Your task to perform on an android device: Clear all items from cart on walmart.com. Search for "razer huntsman" on walmart.com, select the first entry, add it to the cart, then select checkout. Image 0: 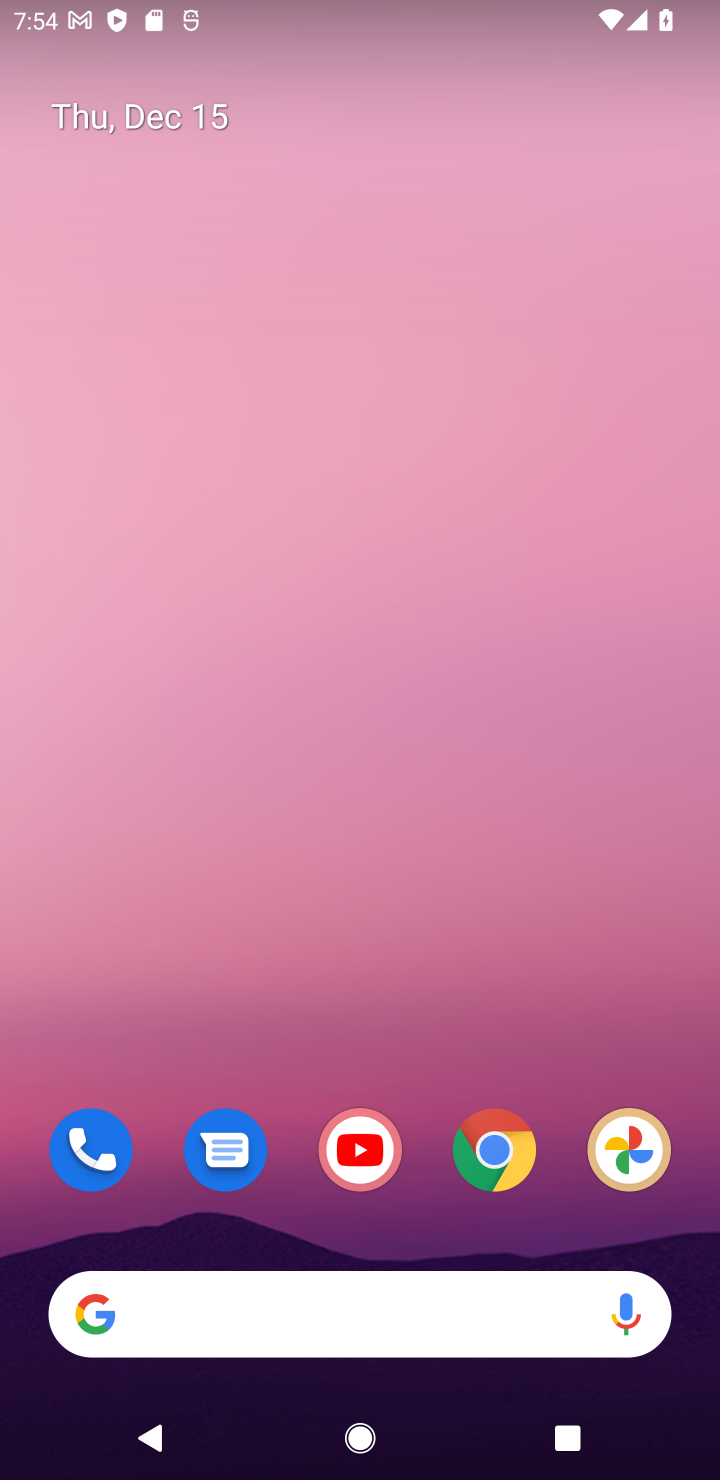
Step 0: click (499, 1149)
Your task to perform on an android device: Clear all items from cart on walmart.com. Search for "razer huntsman" on walmart.com, select the first entry, add it to the cart, then select checkout. Image 1: 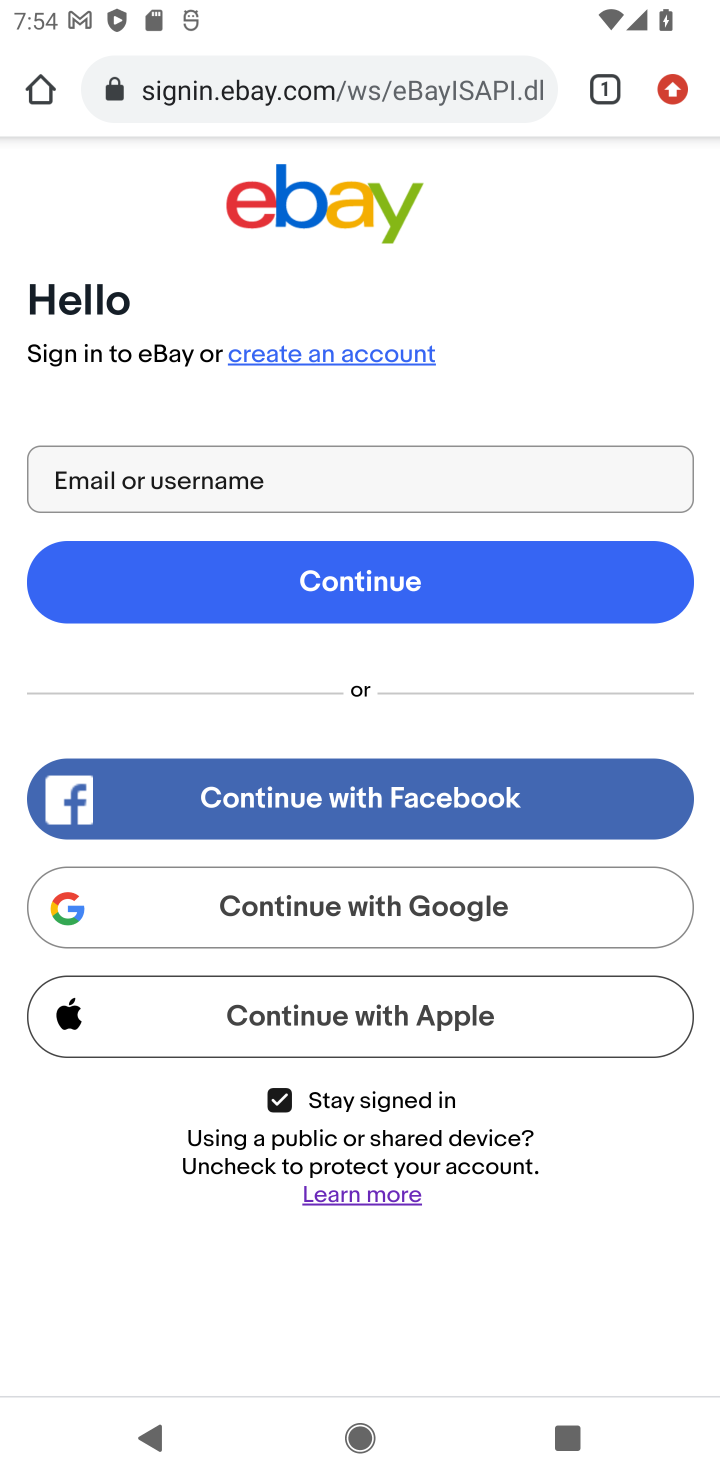
Step 1: click (354, 88)
Your task to perform on an android device: Clear all items from cart on walmart.com. Search for "razer huntsman" on walmart.com, select the first entry, add it to the cart, then select checkout. Image 2: 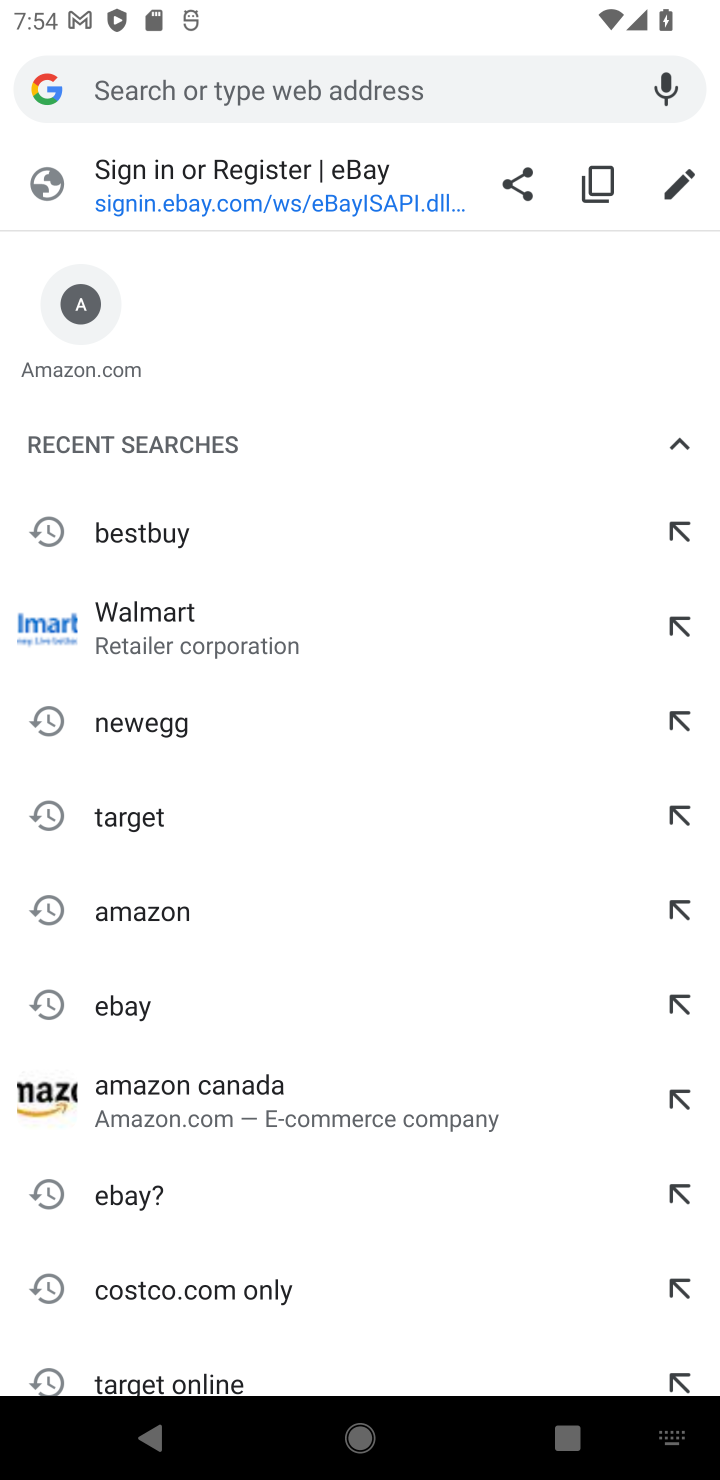
Step 2: type "WALMART"
Your task to perform on an android device: Clear all items from cart on walmart.com. Search for "razer huntsman" on walmart.com, select the first entry, add it to the cart, then select checkout. Image 3: 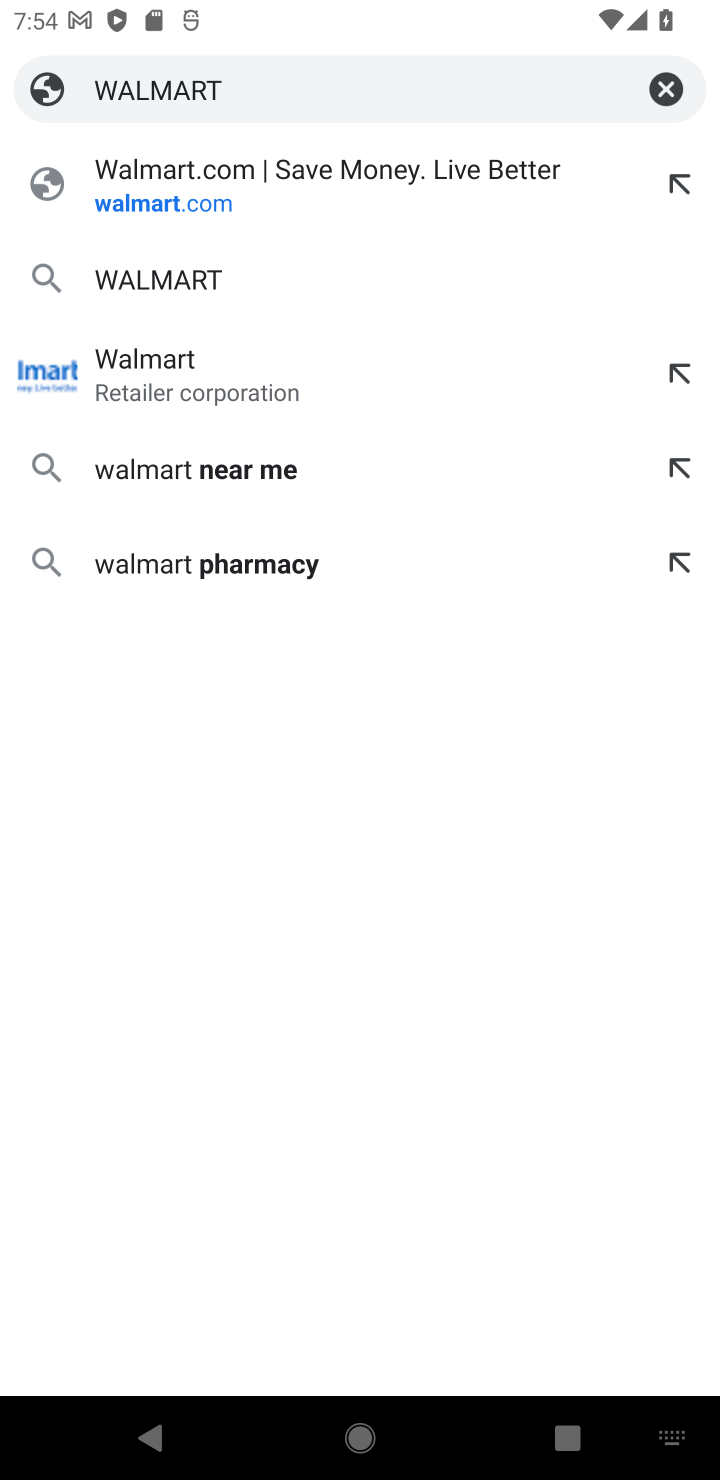
Step 3: click (248, 181)
Your task to perform on an android device: Clear all items from cart on walmart.com. Search for "razer huntsman" on walmart.com, select the first entry, add it to the cart, then select checkout. Image 4: 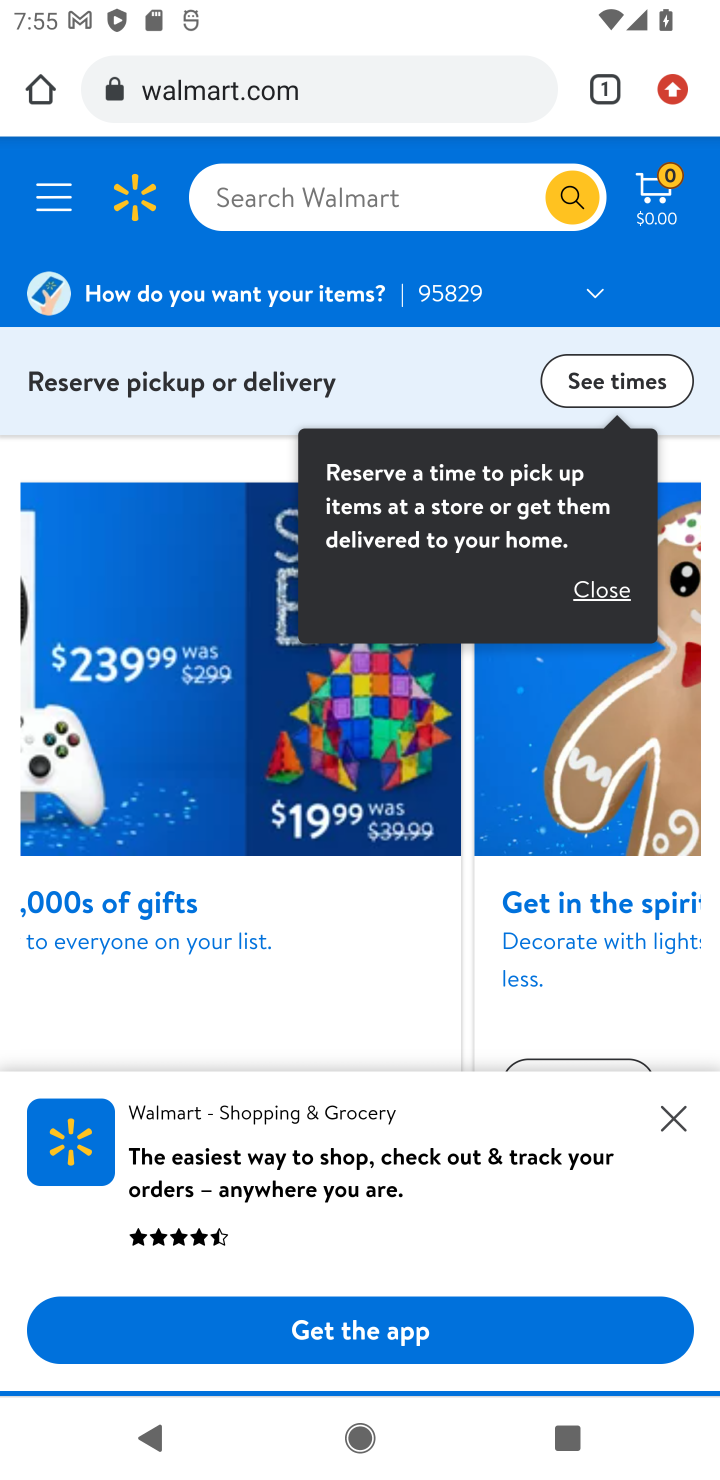
Step 4: click (443, 190)
Your task to perform on an android device: Clear all items from cart on walmart.com. Search for "razer huntsman" on walmart.com, select the first entry, add it to the cart, then select checkout. Image 5: 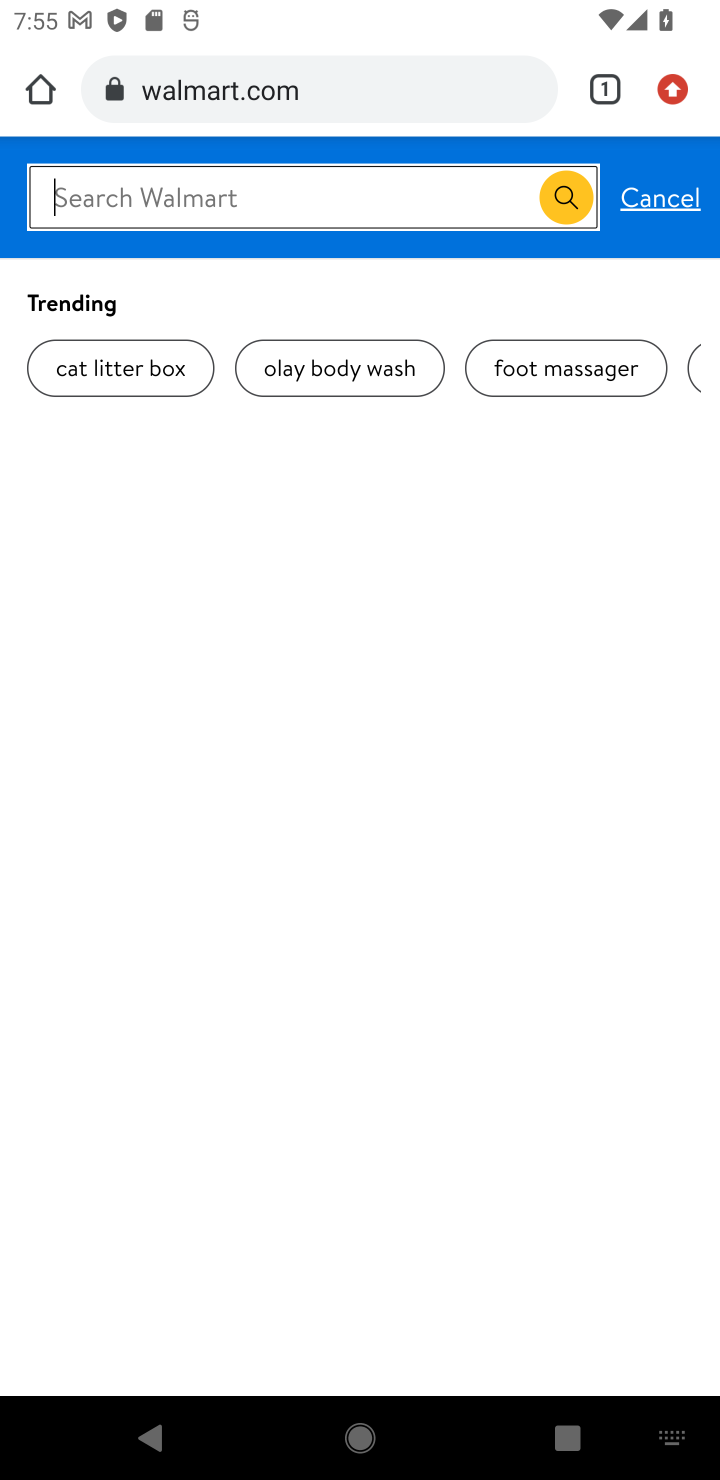
Step 5: type "razer huntsman"
Your task to perform on an android device: Clear all items from cart on walmart.com. Search for "razer huntsman" on walmart.com, select the first entry, add it to the cart, then select checkout. Image 6: 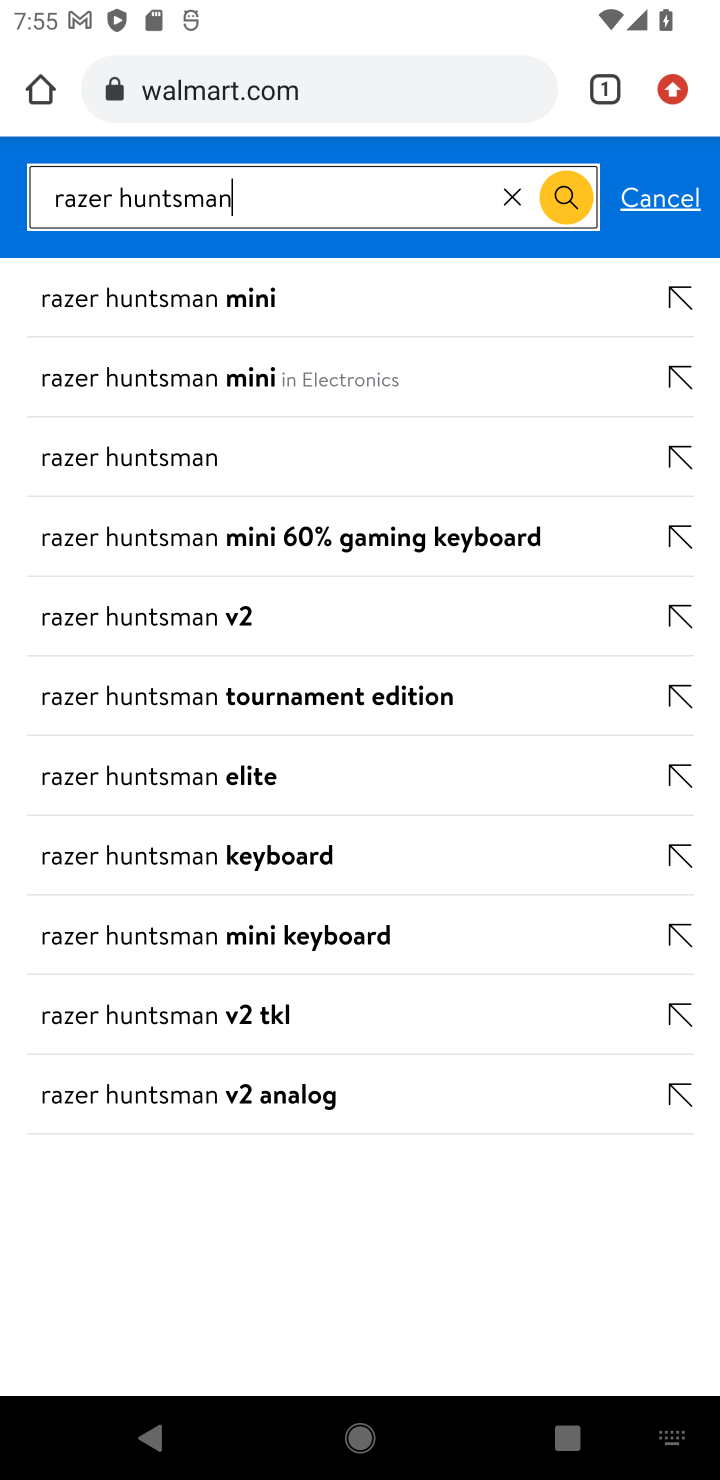
Step 6: click (206, 297)
Your task to perform on an android device: Clear all items from cart on walmart.com. Search for "razer huntsman" on walmart.com, select the first entry, add it to the cart, then select checkout. Image 7: 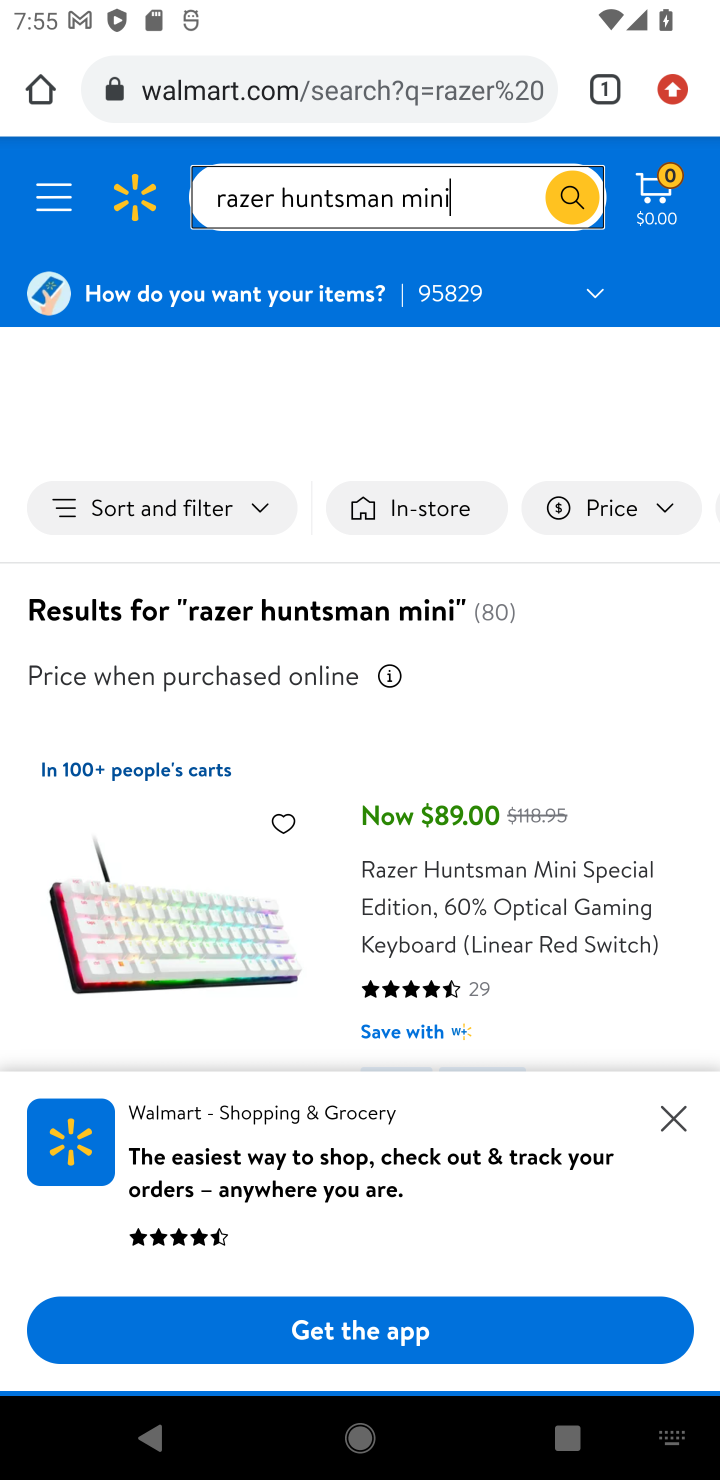
Step 7: click (535, 884)
Your task to perform on an android device: Clear all items from cart on walmart.com. Search for "razer huntsman" on walmart.com, select the first entry, add it to the cart, then select checkout. Image 8: 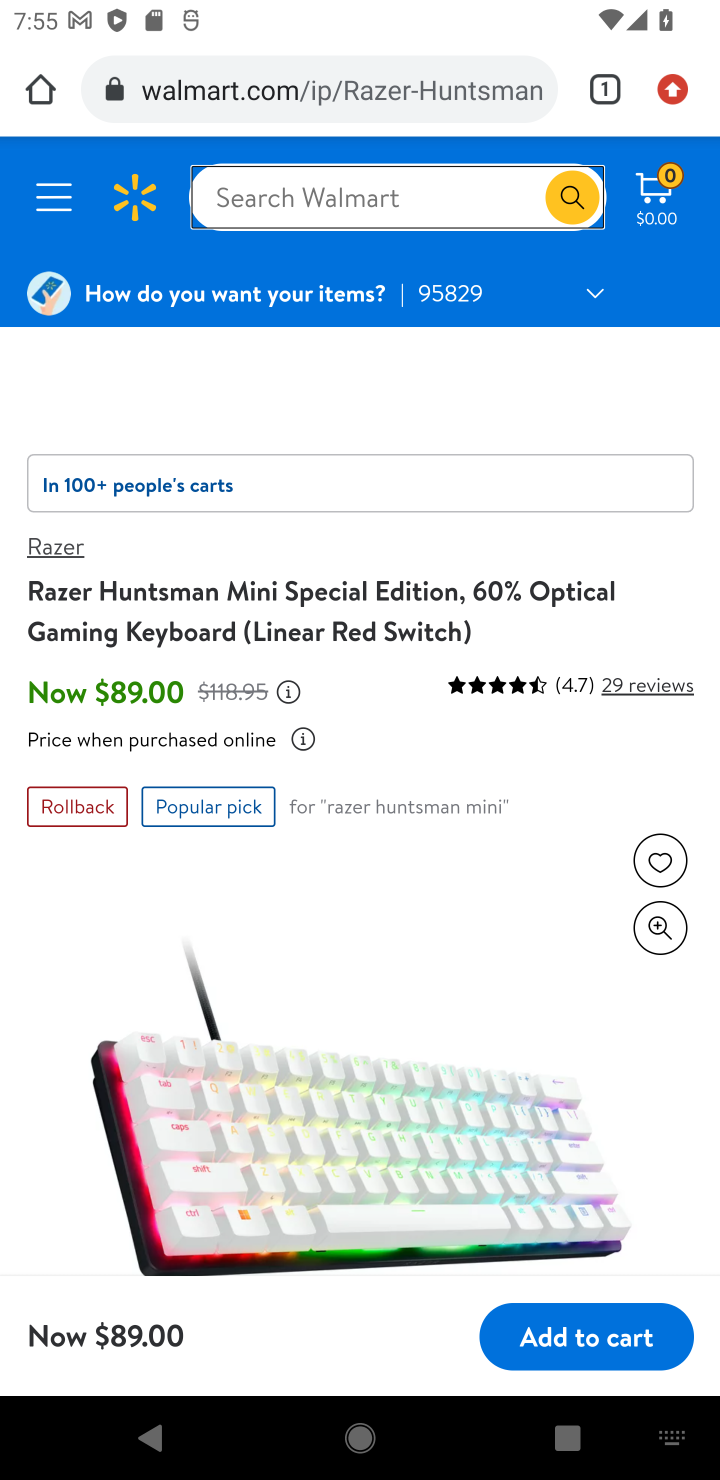
Step 8: click (581, 1345)
Your task to perform on an android device: Clear all items from cart on walmart.com. Search for "razer huntsman" on walmart.com, select the first entry, add it to the cart, then select checkout. Image 9: 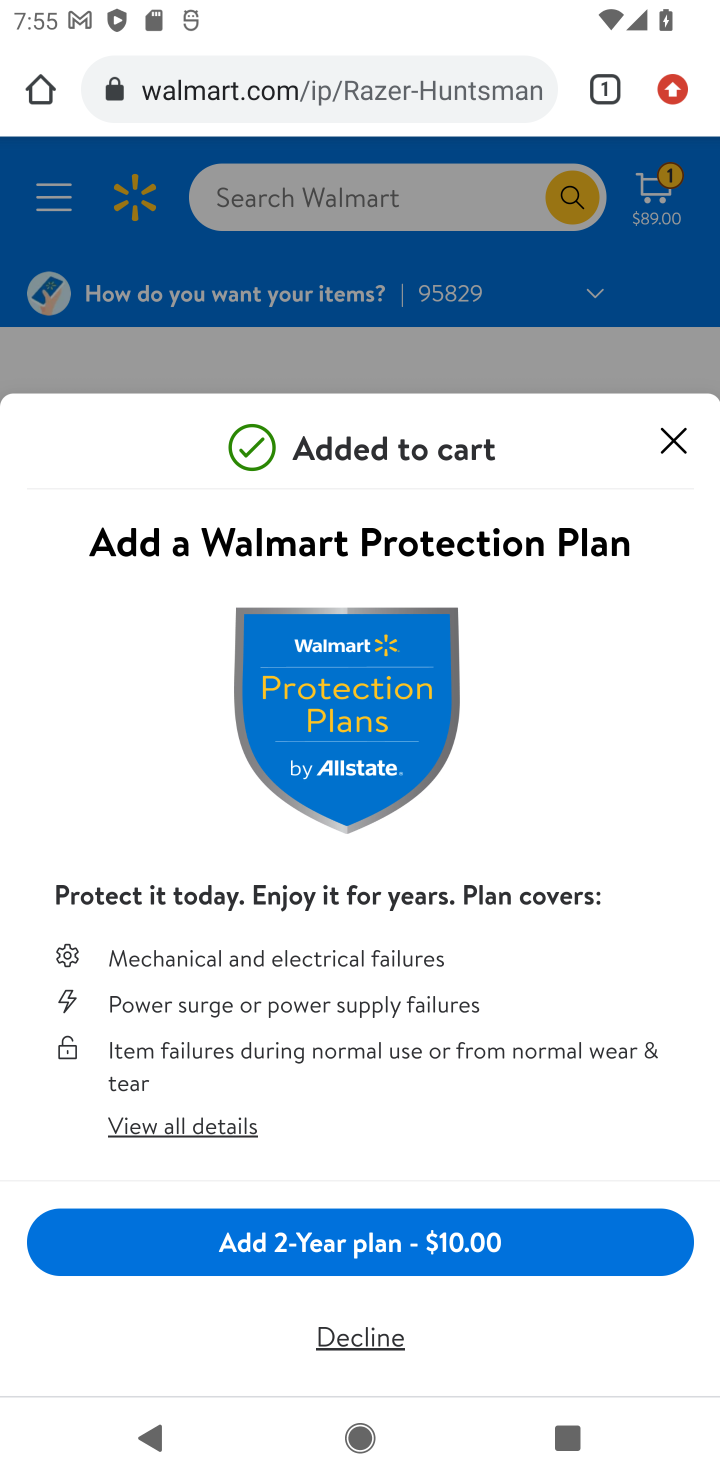
Step 9: click (665, 440)
Your task to perform on an android device: Clear all items from cart on walmart.com. Search for "razer huntsman" on walmart.com, select the first entry, add it to the cart, then select checkout. Image 10: 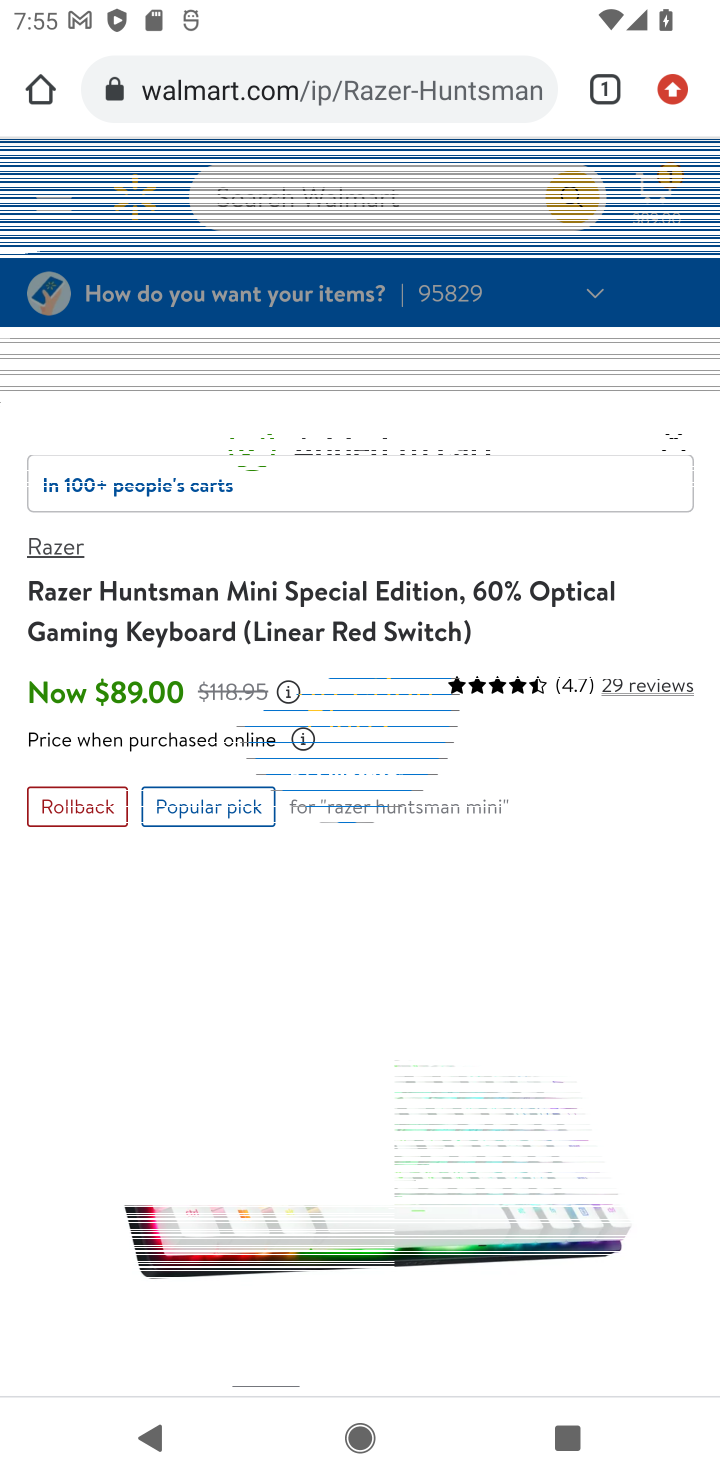
Step 10: click (656, 190)
Your task to perform on an android device: Clear all items from cart on walmart.com. Search for "razer huntsman" on walmart.com, select the first entry, add it to the cart, then select checkout. Image 11: 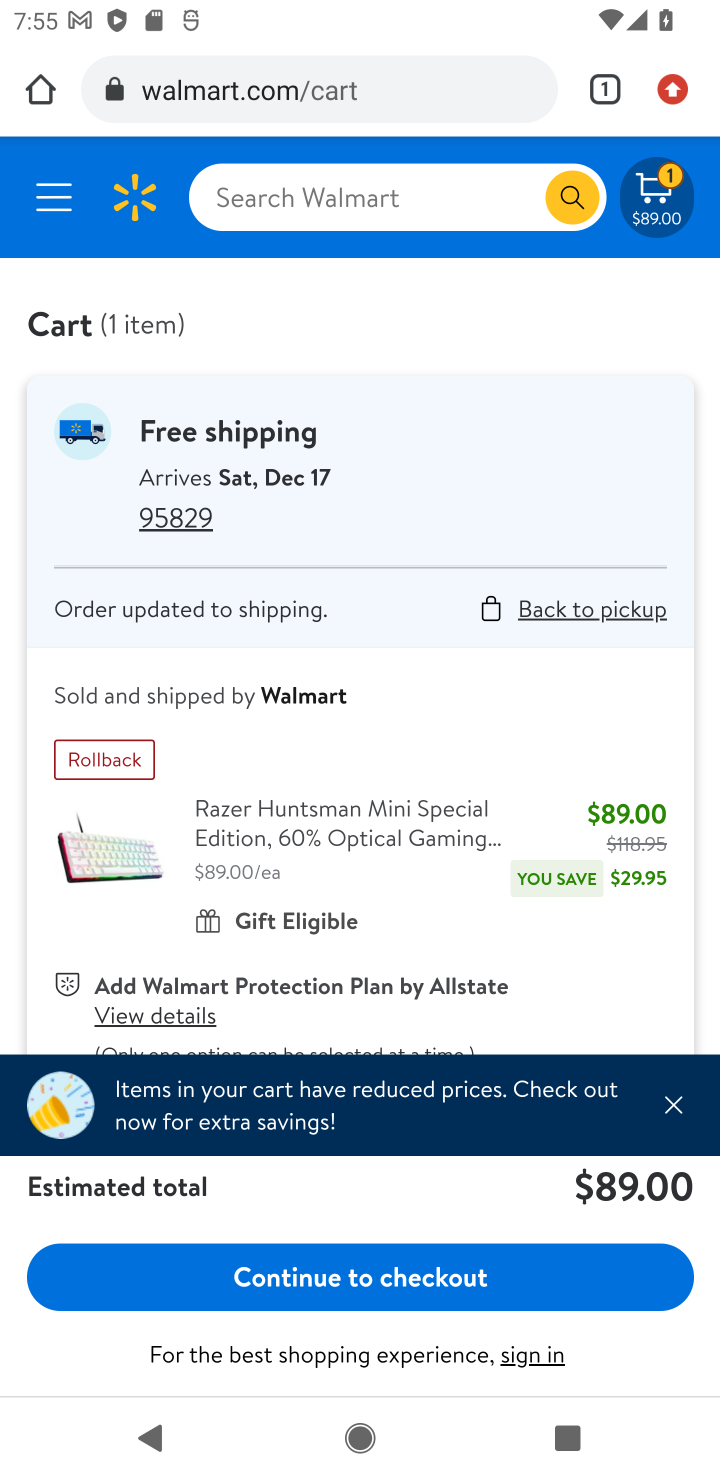
Step 11: click (377, 1280)
Your task to perform on an android device: Clear all items from cart on walmart.com. Search for "razer huntsman" on walmart.com, select the first entry, add it to the cart, then select checkout. Image 12: 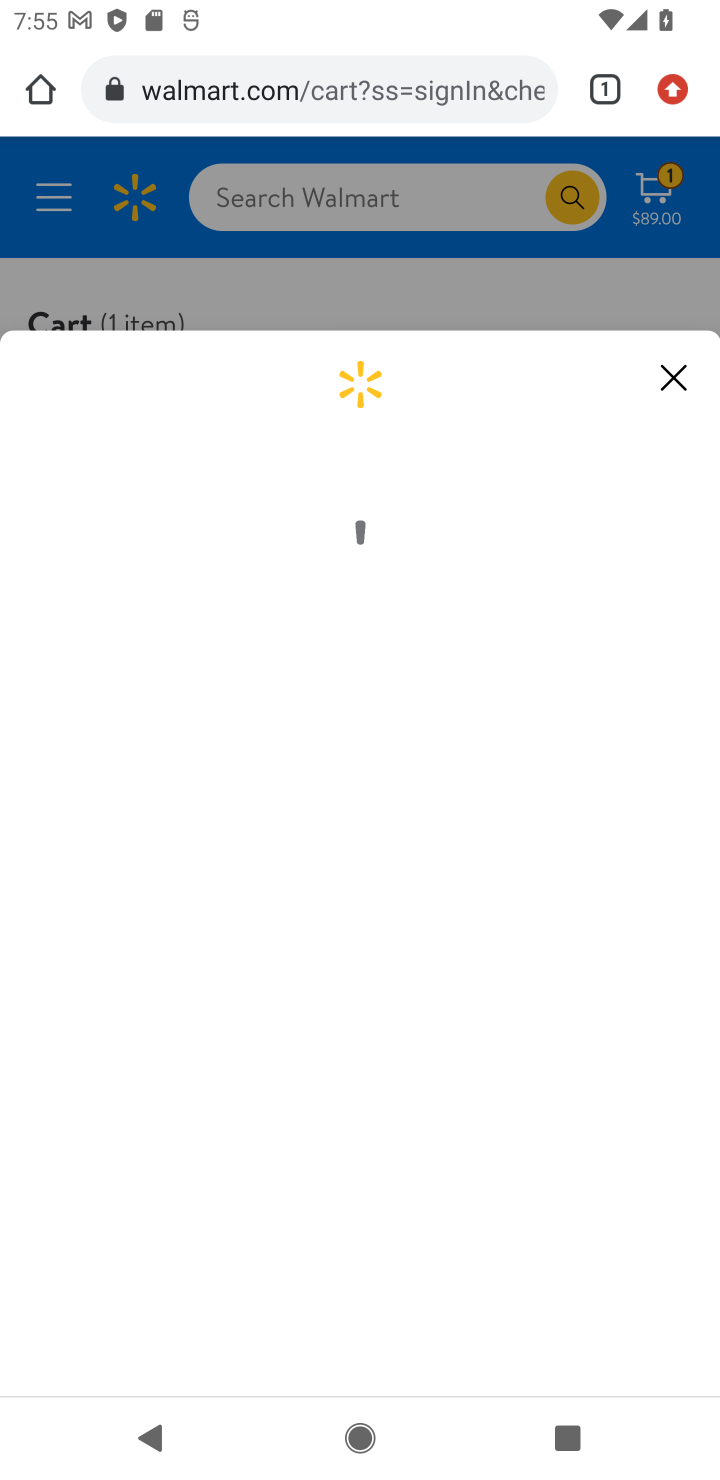
Step 12: task complete